Your task to perform on an android device: delete the emails in spam in the gmail app Image 0: 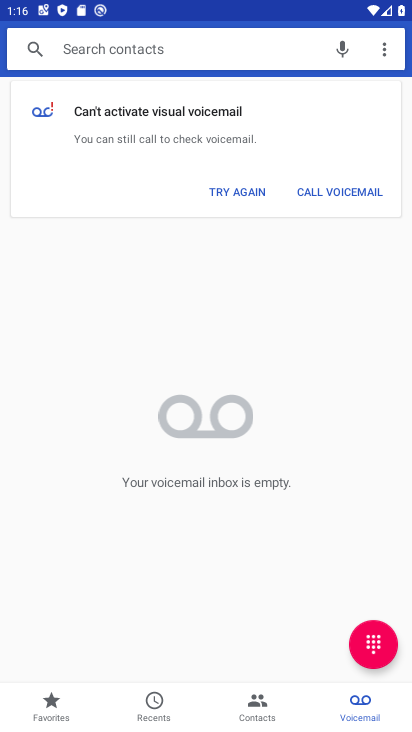
Step 0: press home button
Your task to perform on an android device: delete the emails in spam in the gmail app Image 1: 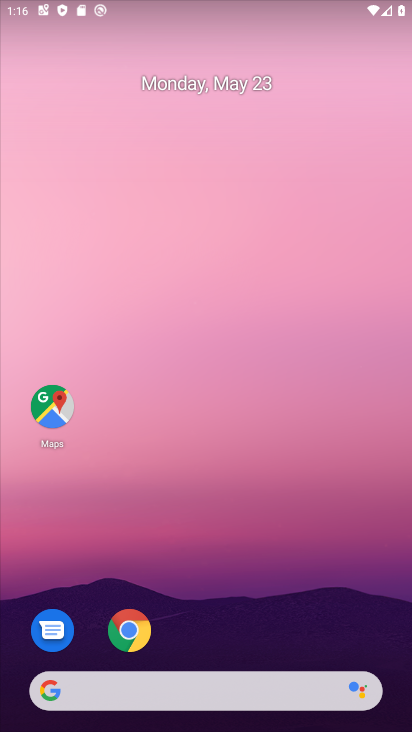
Step 1: drag from (315, 629) to (278, 202)
Your task to perform on an android device: delete the emails in spam in the gmail app Image 2: 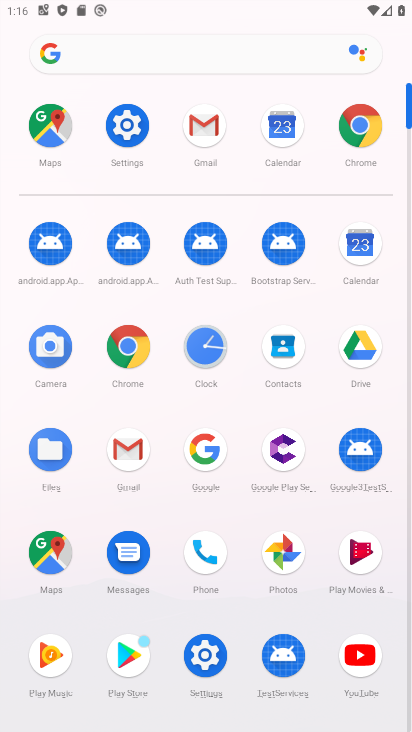
Step 2: click (139, 454)
Your task to perform on an android device: delete the emails in spam in the gmail app Image 3: 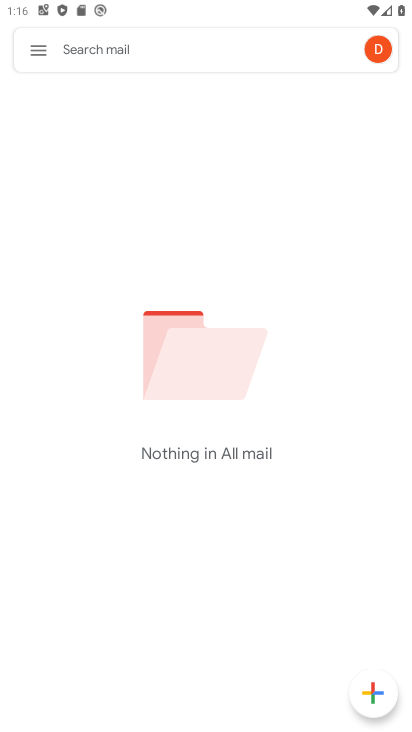
Step 3: click (45, 52)
Your task to perform on an android device: delete the emails in spam in the gmail app Image 4: 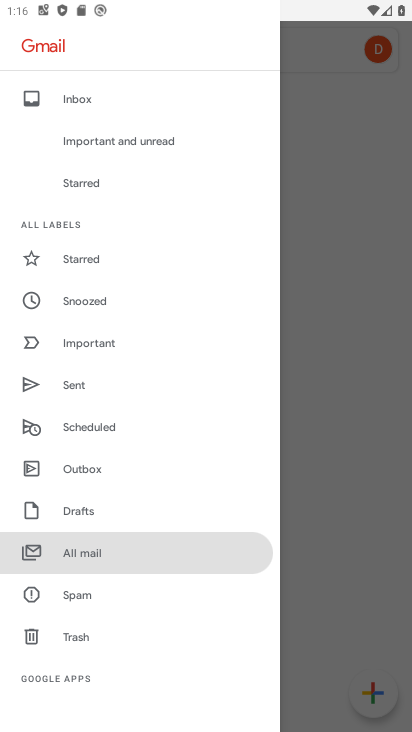
Step 4: click (77, 598)
Your task to perform on an android device: delete the emails in spam in the gmail app Image 5: 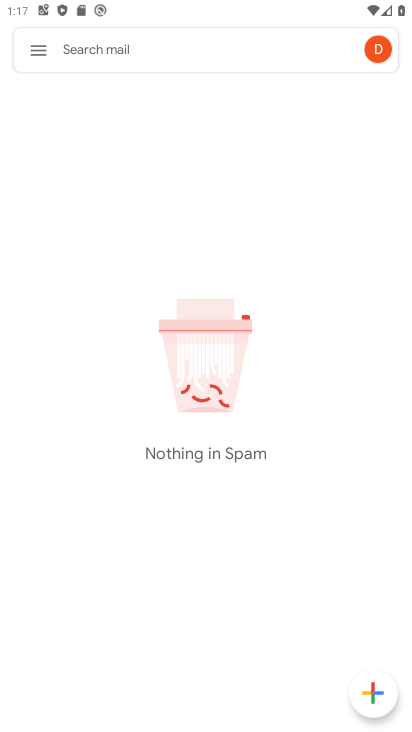
Step 5: task complete